Your task to perform on an android device: check google app version Image 0: 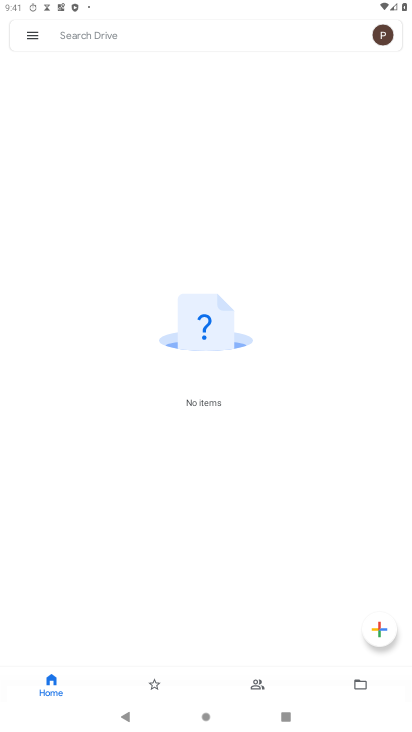
Step 0: press home button
Your task to perform on an android device: check google app version Image 1: 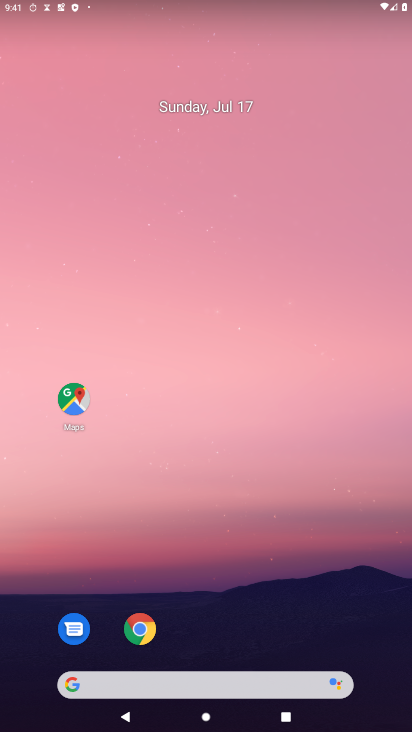
Step 1: drag from (251, 678) to (232, 232)
Your task to perform on an android device: check google app version Image 2: 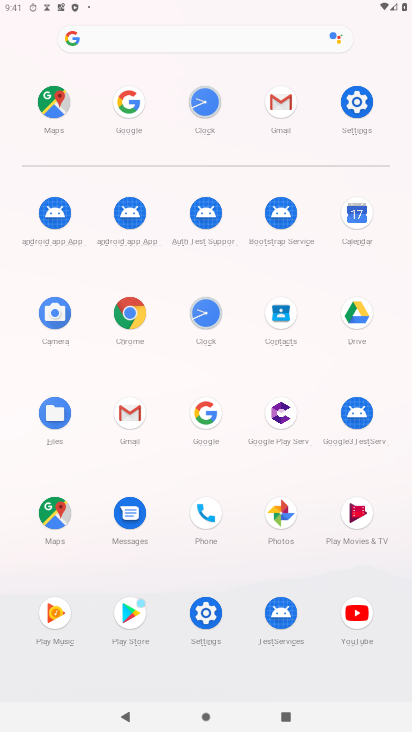
Step 2: click (216, 414)
Your task to perform on an android device: check google app version Image 3: 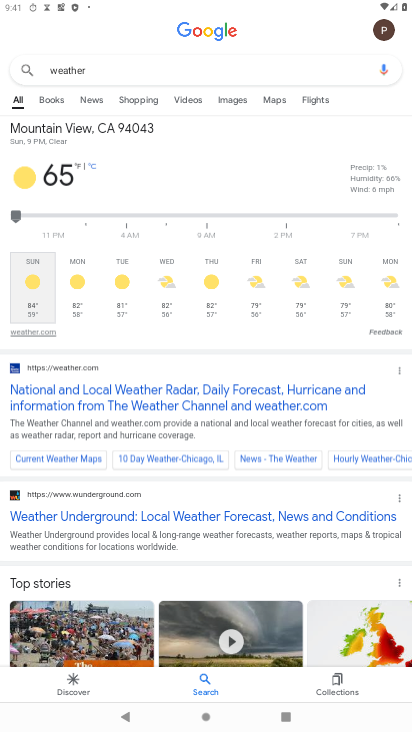
Step 3: click (385, 28)
Your task to perform on an android device: check google app version Image 4: 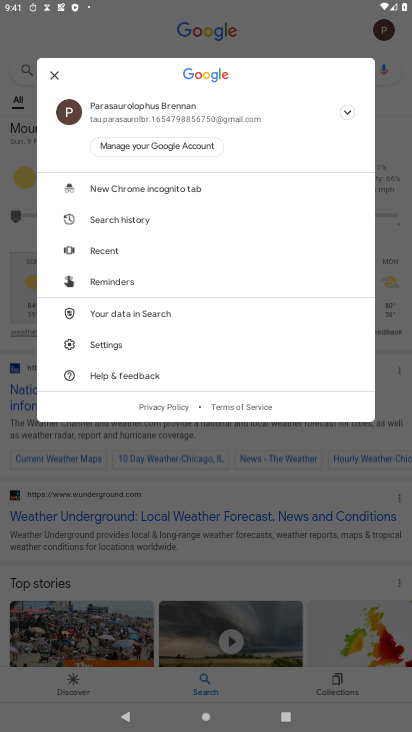
Step 4: click (113, 344)
Your task to perform on an android device: check google app version Image 5: 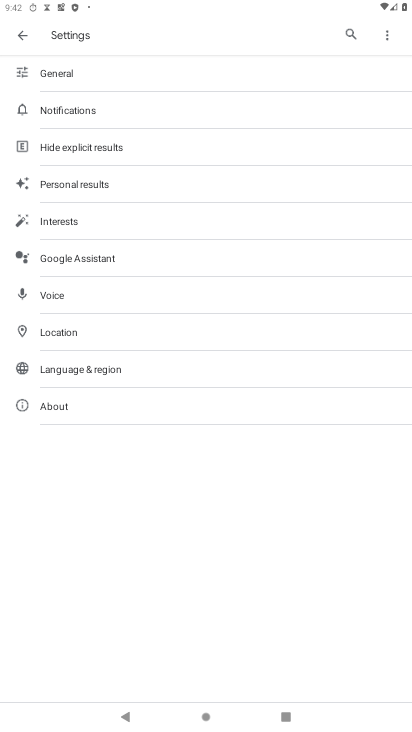
Step 5: click (52, 407)
Your task to perform on an android device: check google app version Image 6: 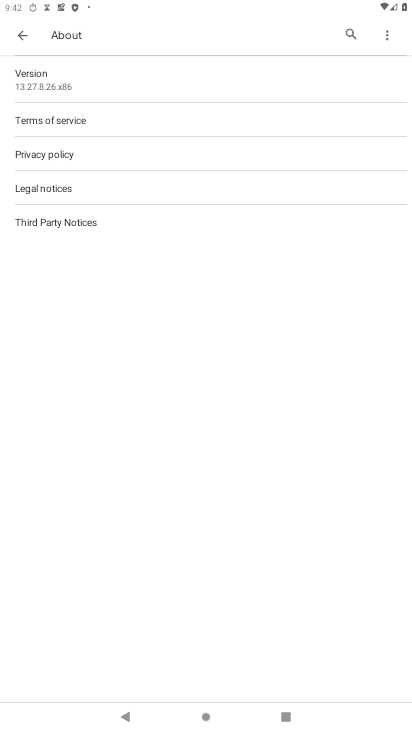
Step 6: task complete